Your task to perform on an android device: Go to Reddit.com Image 0: 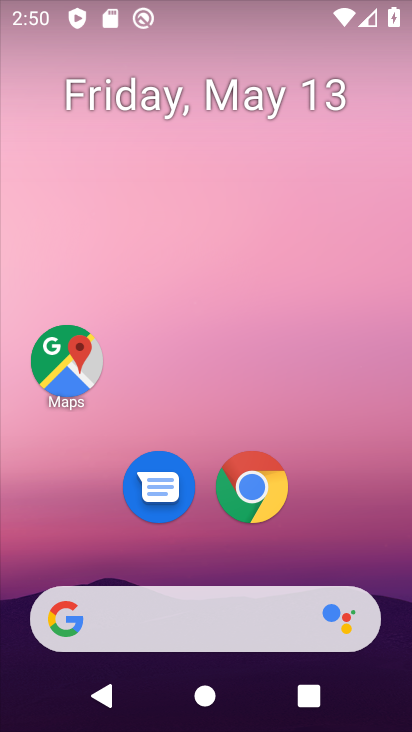
Step 0: drag from (363, 511) to (404, 47)
Your task to perform on an android device: Go to Reddit.com Image 1: 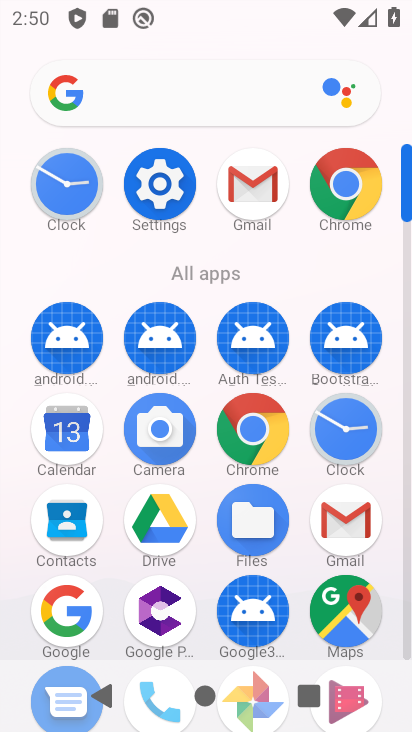
Step 1: click (352, 188)
Your task to perform on an android device: Go to Reddit.com Image 2: 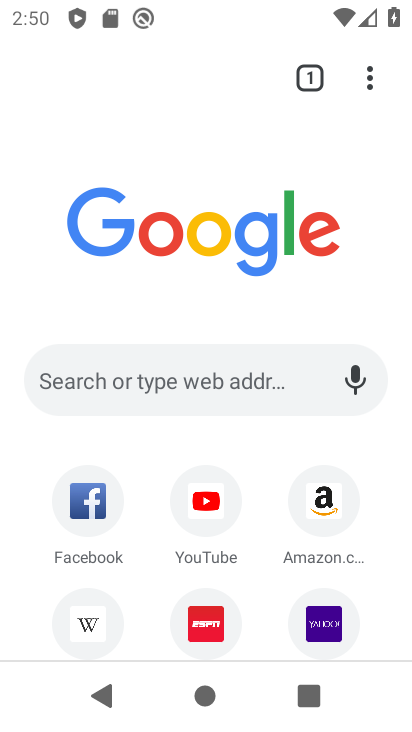
Step 2: click (163, 379)
Your task to perform on an android device: Go to Reddit.com Image 3: 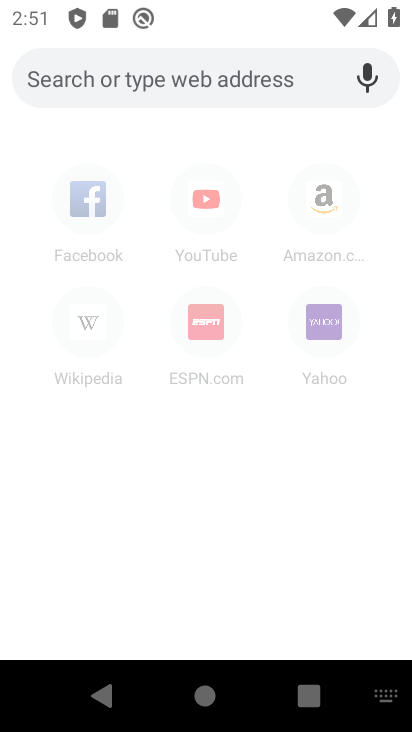
Step 3: type "reddit "
Your task to perform on an android device: Go to Reddit.com Image 4: 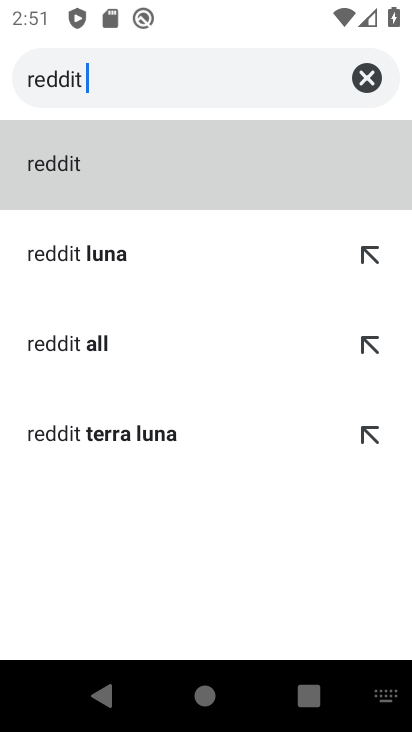
Step 4: click (41, 149)
Your task to perform on an android device: Go to Reddit.com Image 5: 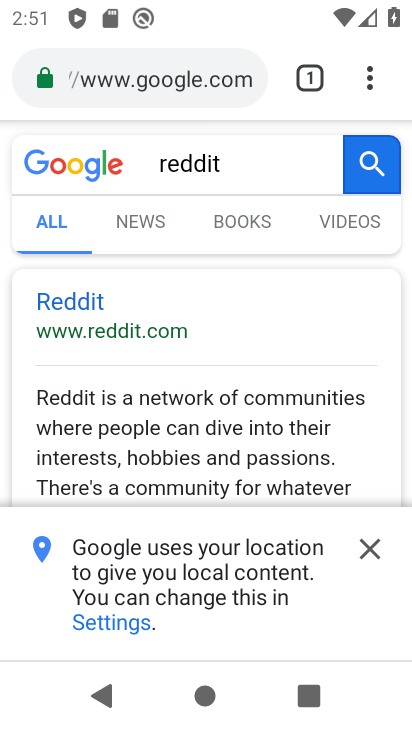
Step 5: click (369, 546)
Your task to perform on an android device: Go to Reddit.com Image 6: 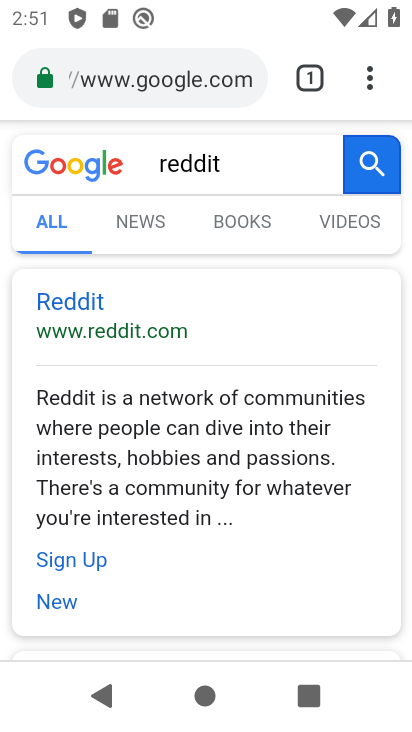
Step 6: click (59, 315)
Your task to perform on an android device: Go to Reddit.com Image 7: 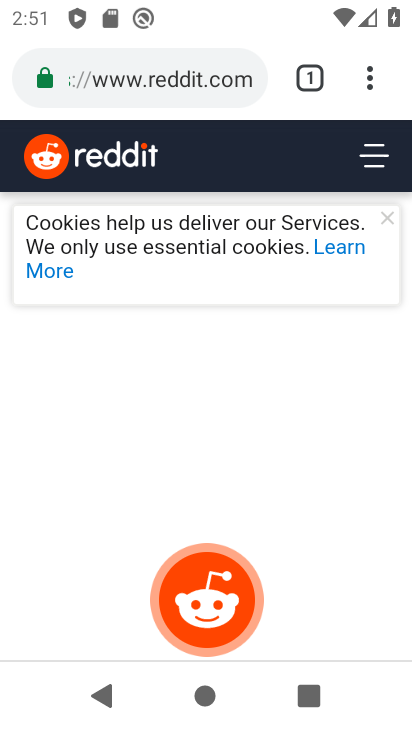
Step 7: task complete